Your task to perform on an android device: refresh tabs in the chrome app Image 0: 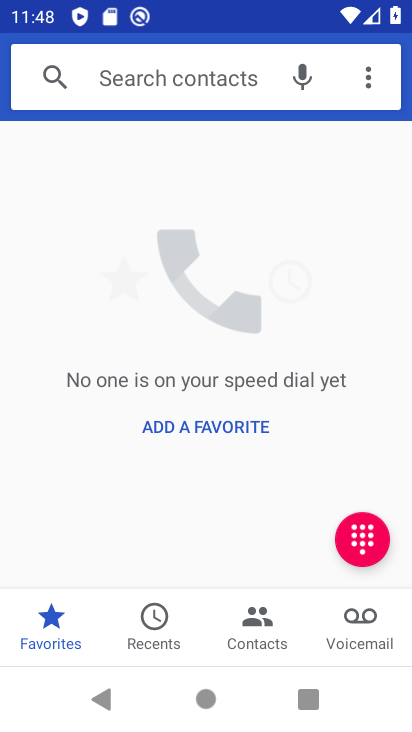
Step 0: press home button
Your task to perform on an android device: refresh tabs in the chrome app Image 1: 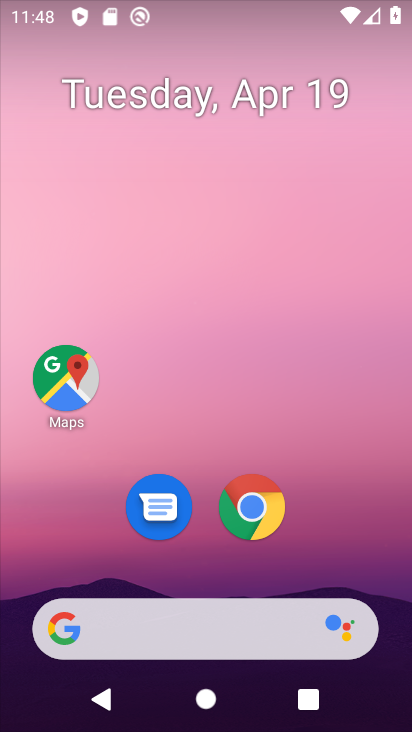
Step 1: drag from (364, 506) to (363, 196)
Your task to perform on an android device: refresh tabs in the chrome app Image 2: 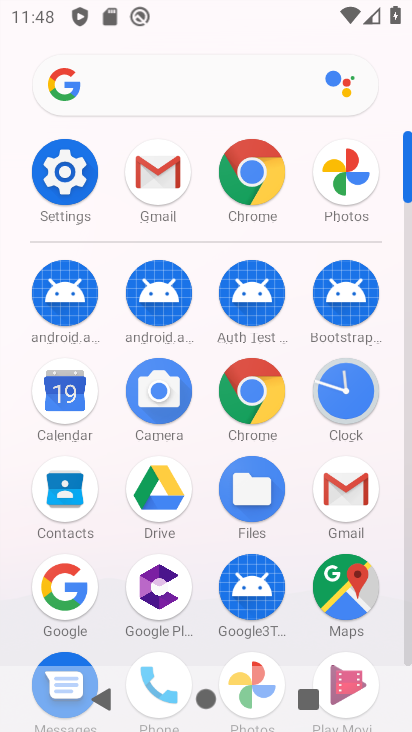
Step 2: drag from (390, 514) to (390, 255)
Your task to perform on an android device: refresh tabs in the chrome app Image 3: 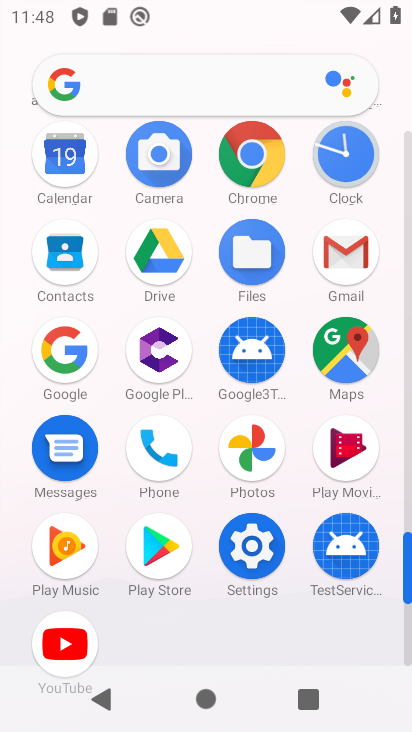
Step 3: click (244, 158)
Your task to perform on an android device: refresh tabs in the chrome app Image 4: 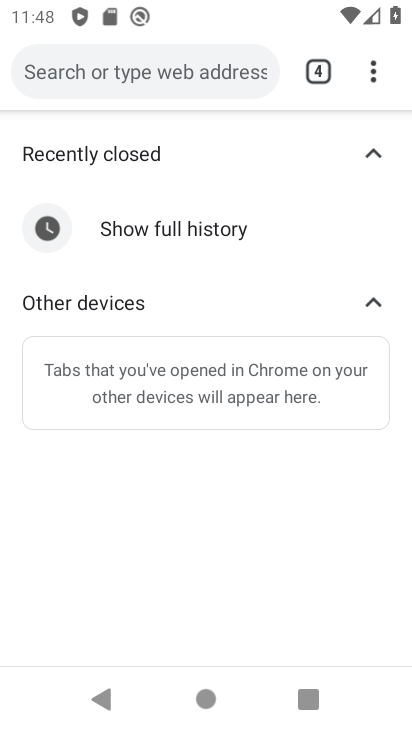
Step 4: click (379, 79)
Your task to perform on an android device: refresh tabs in the chrome app Image 5: 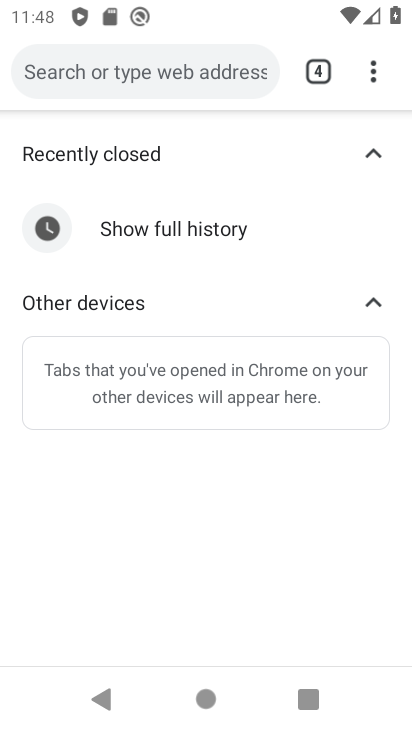
Step 5: task complete